Your task to perform on an android device: manage bookmarks in the chrome app Image 0: 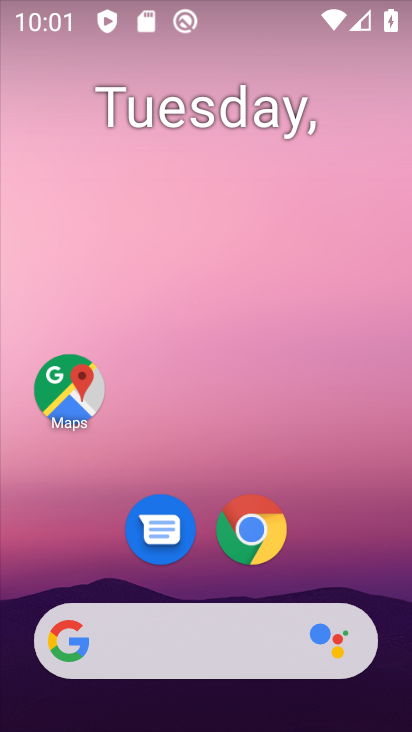
Step 0: click (255, 545)
Your task to perform on an android device: manage bookmarks in the chrome app Image 1: 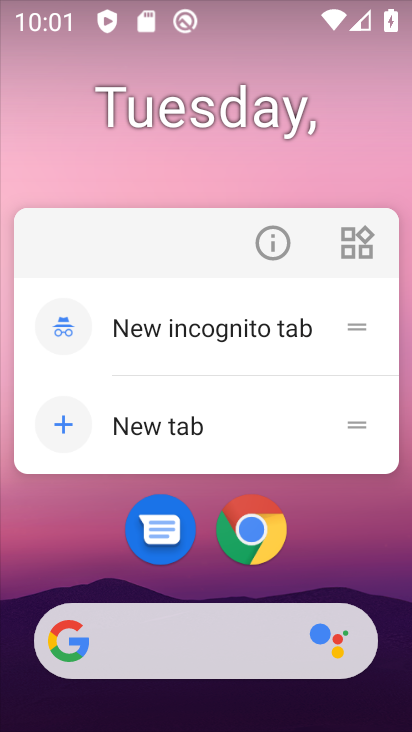
Step 1: click (255, 545)
Your task to perform on an android device: manage bookmarks in the chrome app Image 2: 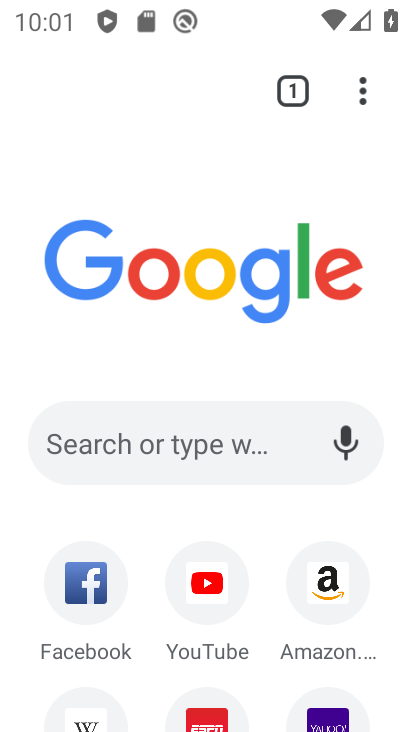
Step 2: task complete